Your task to perform on an android device: open app "Yahoo Mail" (install if not already installed) and enter user name: "lawsuit@inbox.com" and password: "pooch" Image 0: 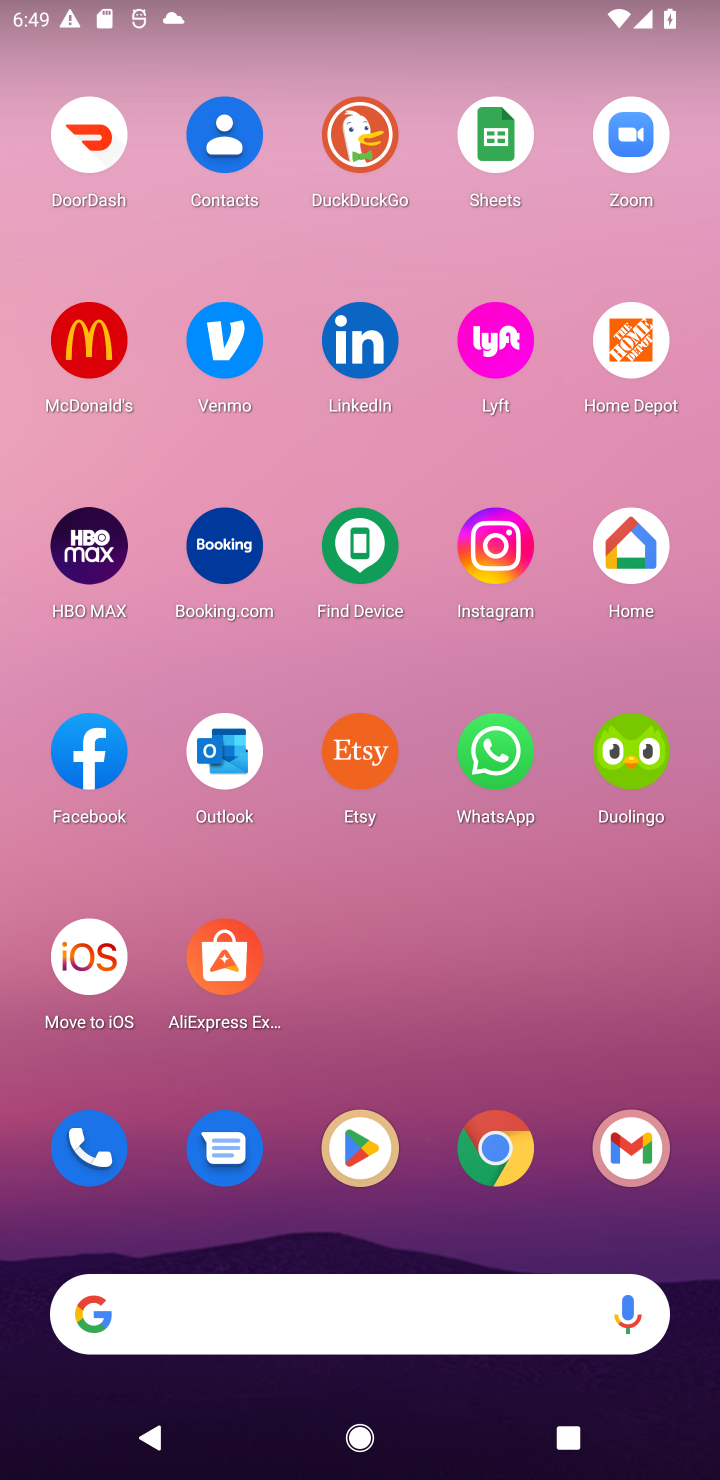
Step 0: drag from (138, 1309) to (35, 478)
Your task to perform on an android device: open app "Yahoo Mail" (install if not already installed) and enter user name: "lawsuit@inbox.com" and password: "pooch" Image 1: 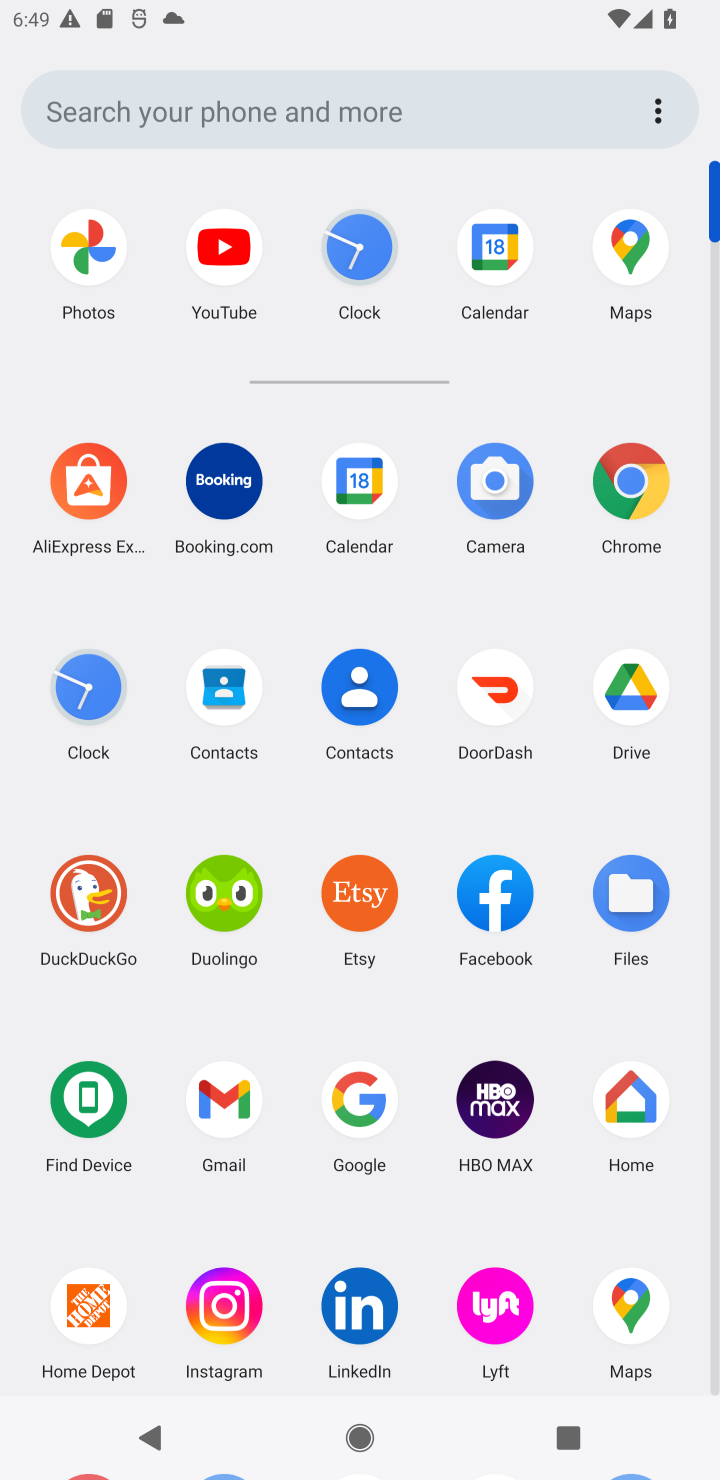
Step 1: drag from (478, 510) to (551, 251)
Your task to perform on an android device: open app "Yahoo Mail" (install if not already installed) and enter user name: "lawsuit@inbox.com" and password: "pooch" Image 2: 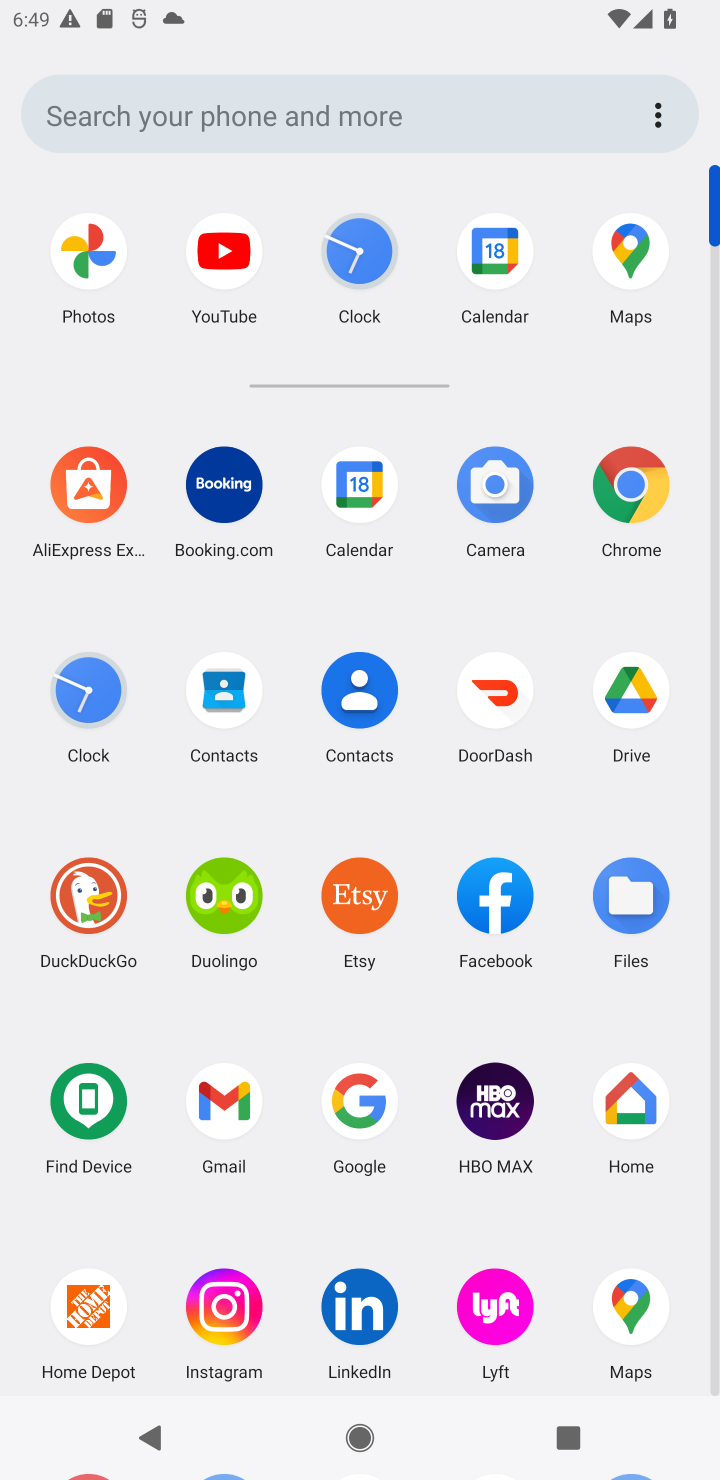
Step 2: drag from (390, 947) to (515, 152)
Your task to perform on an android device: open app "Yahoo Mail" (install if not already installed) and enter user name: "lawsuit@inbox.com" and password: "pooch" Image 3: 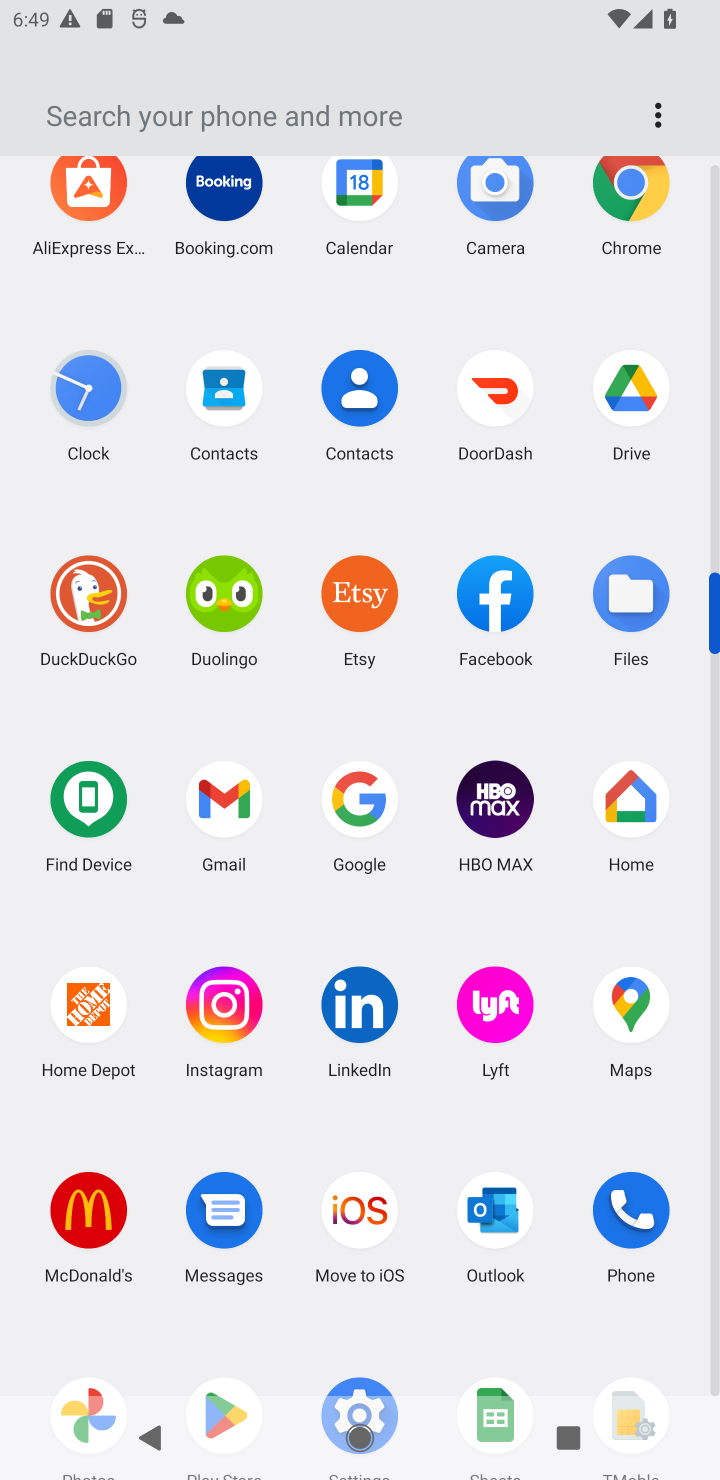
Step 3: drag from (266, 1270) to (572, 1)
Your task to perform on an android device: open app "Yahoo Mail" (install if not already installed) and enter user name: "lawsuit@inbox.com" and password: "pooch" Image 4: 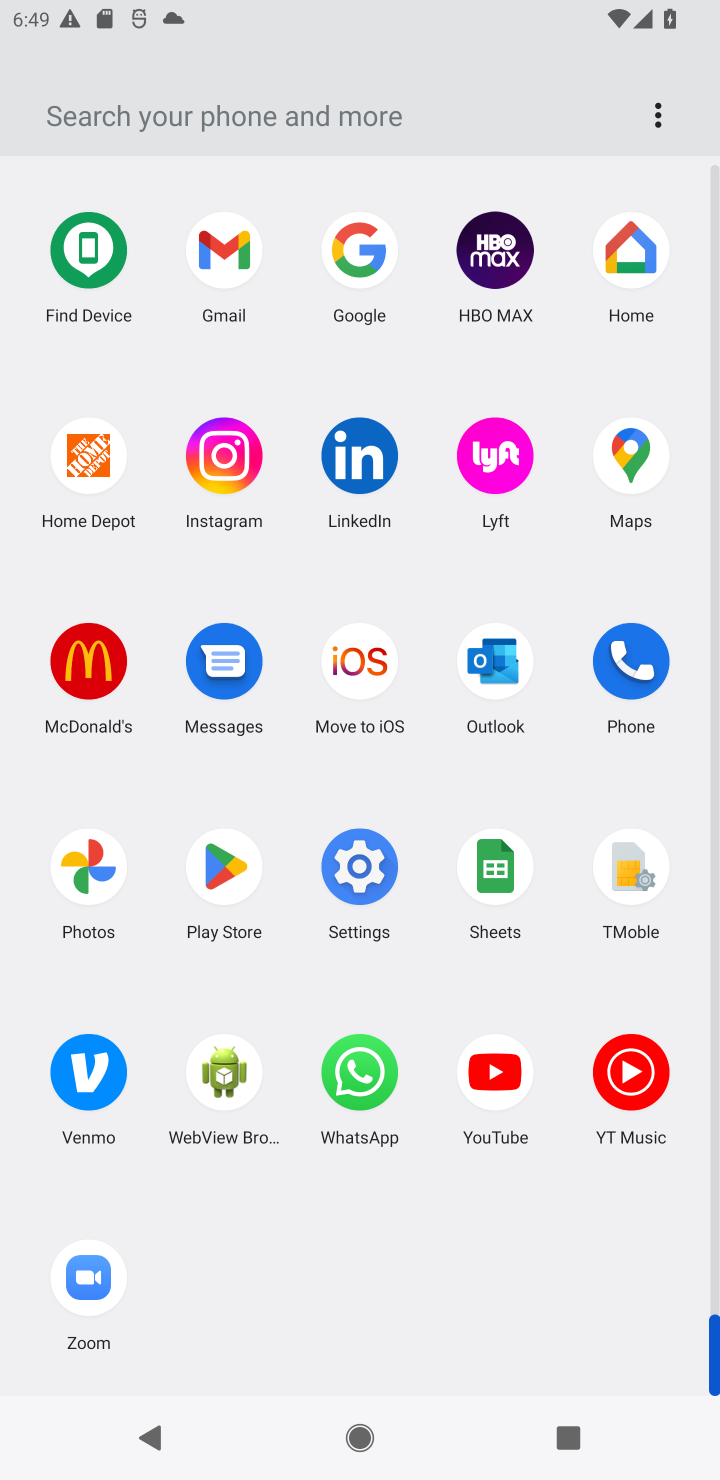
Step 4: click (230, 864)
Your task to perform on an android device: open app "Yahoo Mail" (install if not already installed) and enter user name: "lawsuit@inbox.com" and password: "pooch" Image 5: 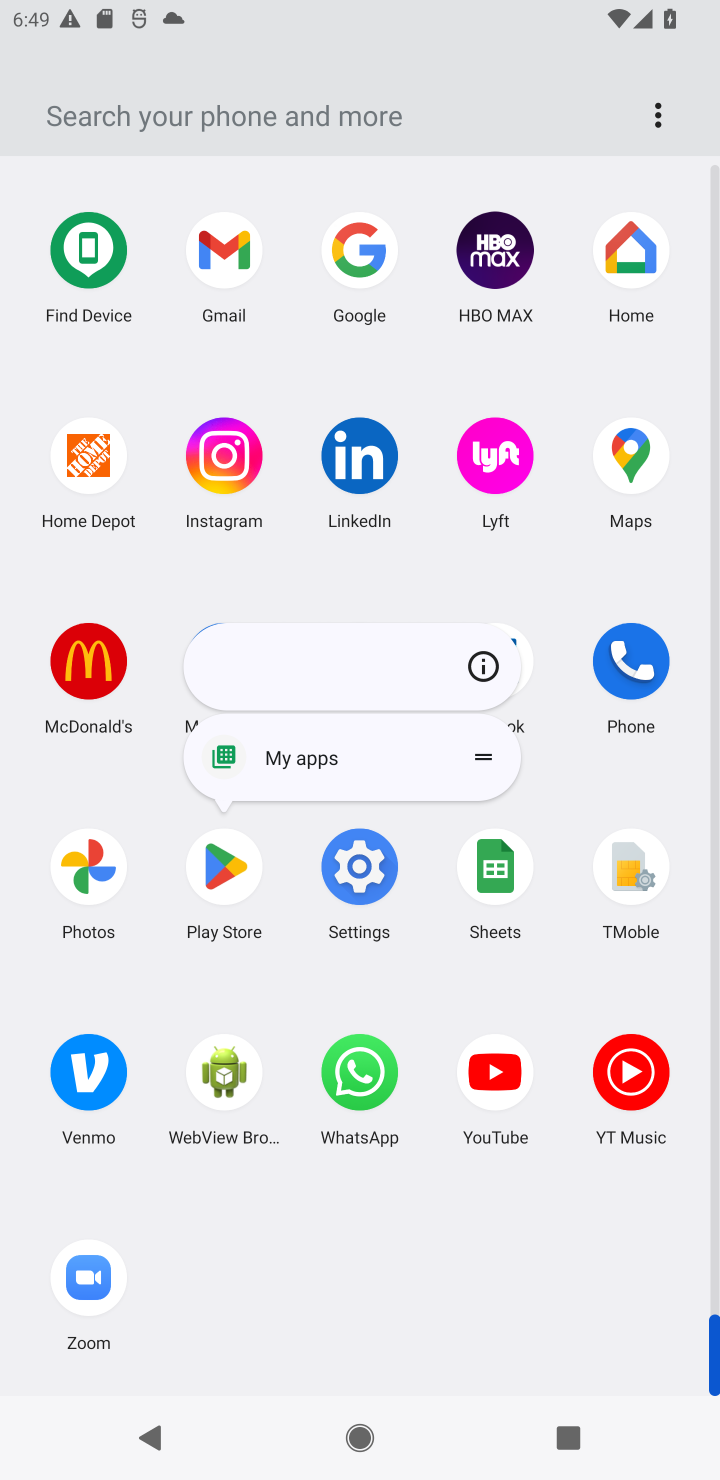
Step 5: click (228, 860)
Your task to perform on an android device: open app "Yahoo Mail" (install if not already installed) and enter user name: "lawsuit@inbox.com" and password: "pooch" Image 6: 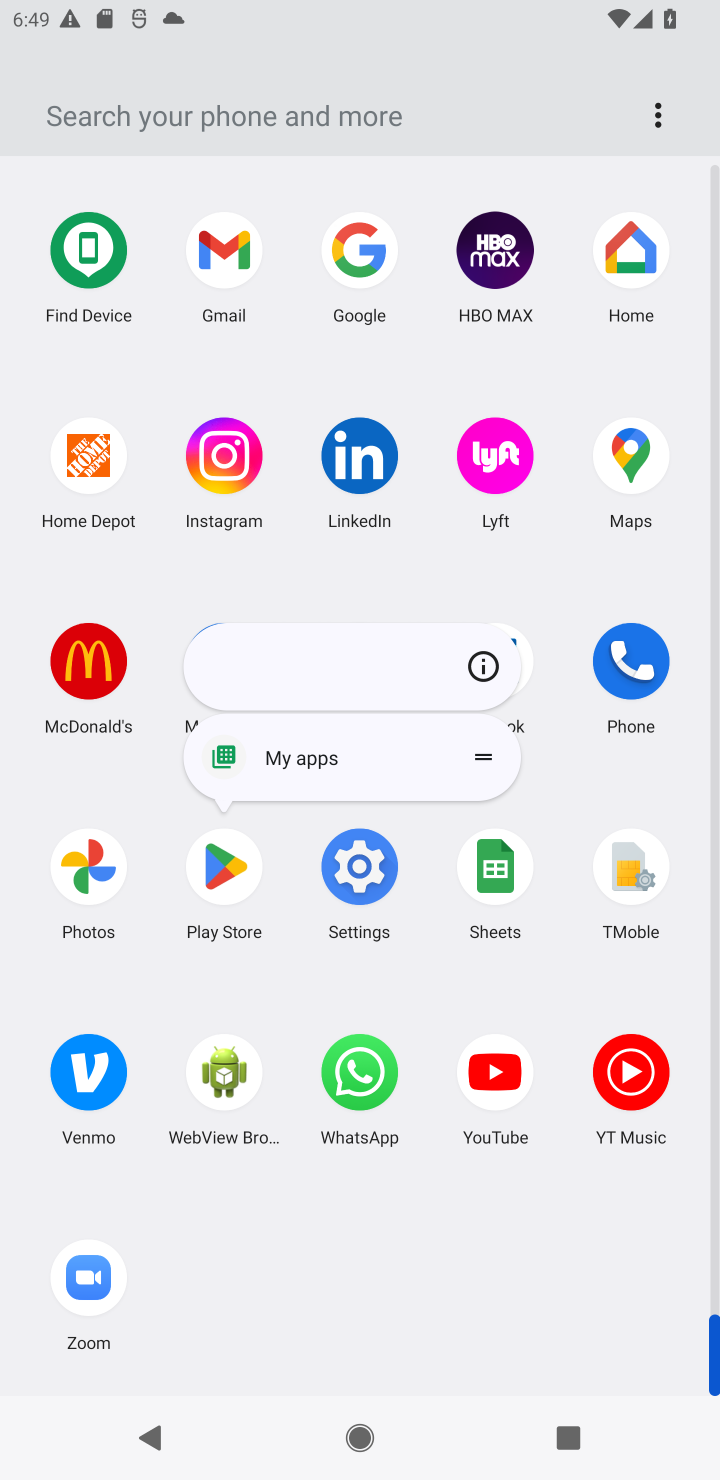
Step 6: click (227, 860)
Your task to perform on an android device: open app "Yahoo Mail" (install if not already installed) and enter user name: "lawsuit@inbox.com" and password: "pooch" Image 7: 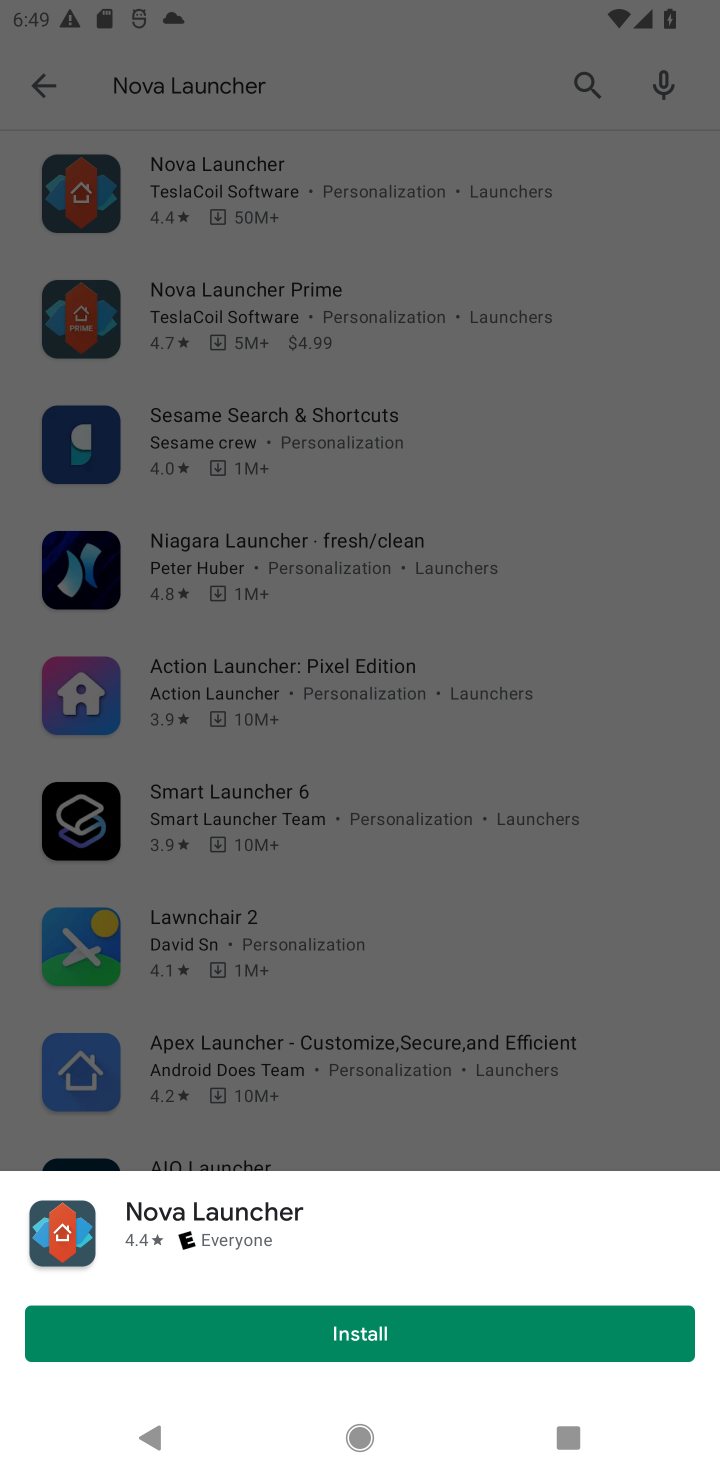
Step 7: press back button
Your task to perform on an android device: open app "Yahoo Mail" (install if not already installed) and enter user name: "lawsuit@inbox.com" and password: "pooch" Image 8: 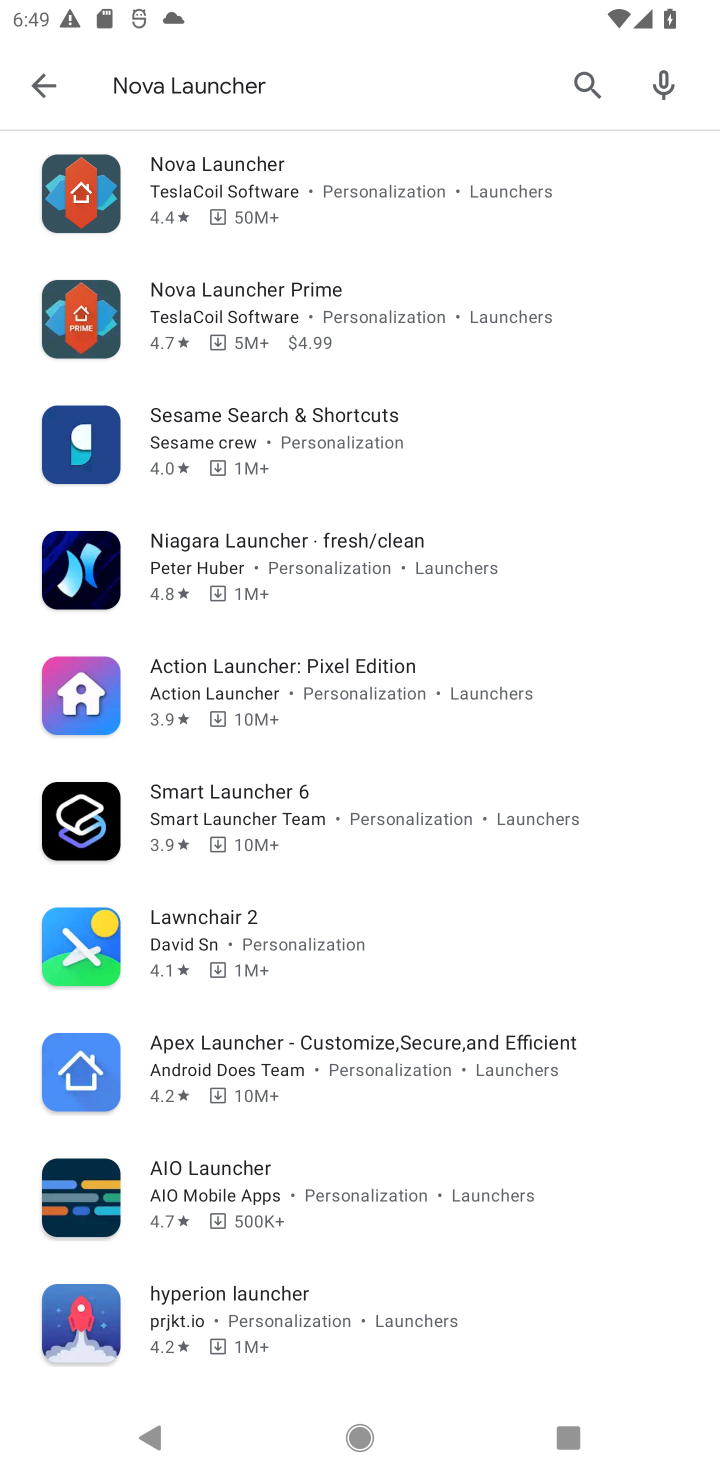
Step 8: press back button
Your task to perform on an android device: open app "Yahoo Mail" (install if not already installed) and enter user name: "lawsuit@inbox.com" and password: "pooch" Image 9: 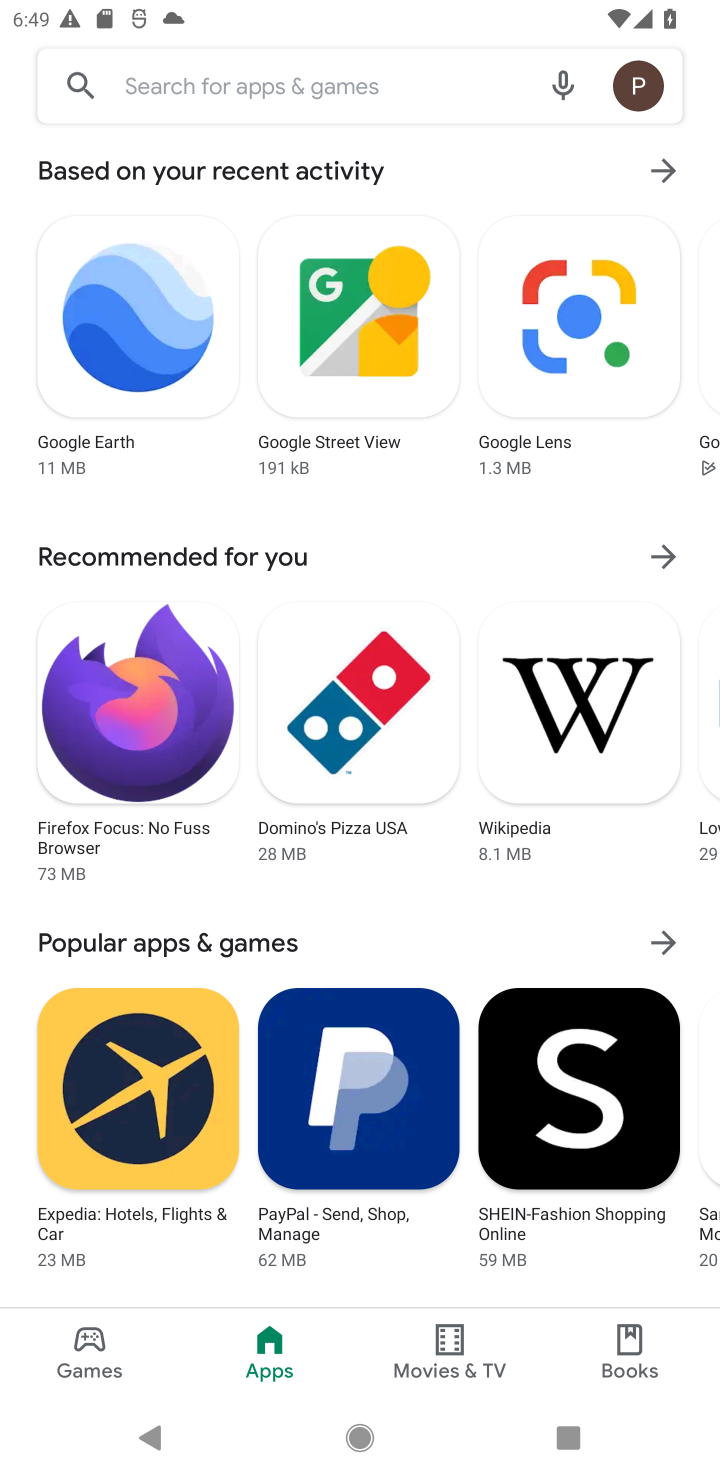
Step 9: click (197, 100)
Your task to perform on an android device: open app "Yahoo Mail" (install if not already installed) and enter user name: "lawsuit@inbox.com" and password: "pooch" Image 10: 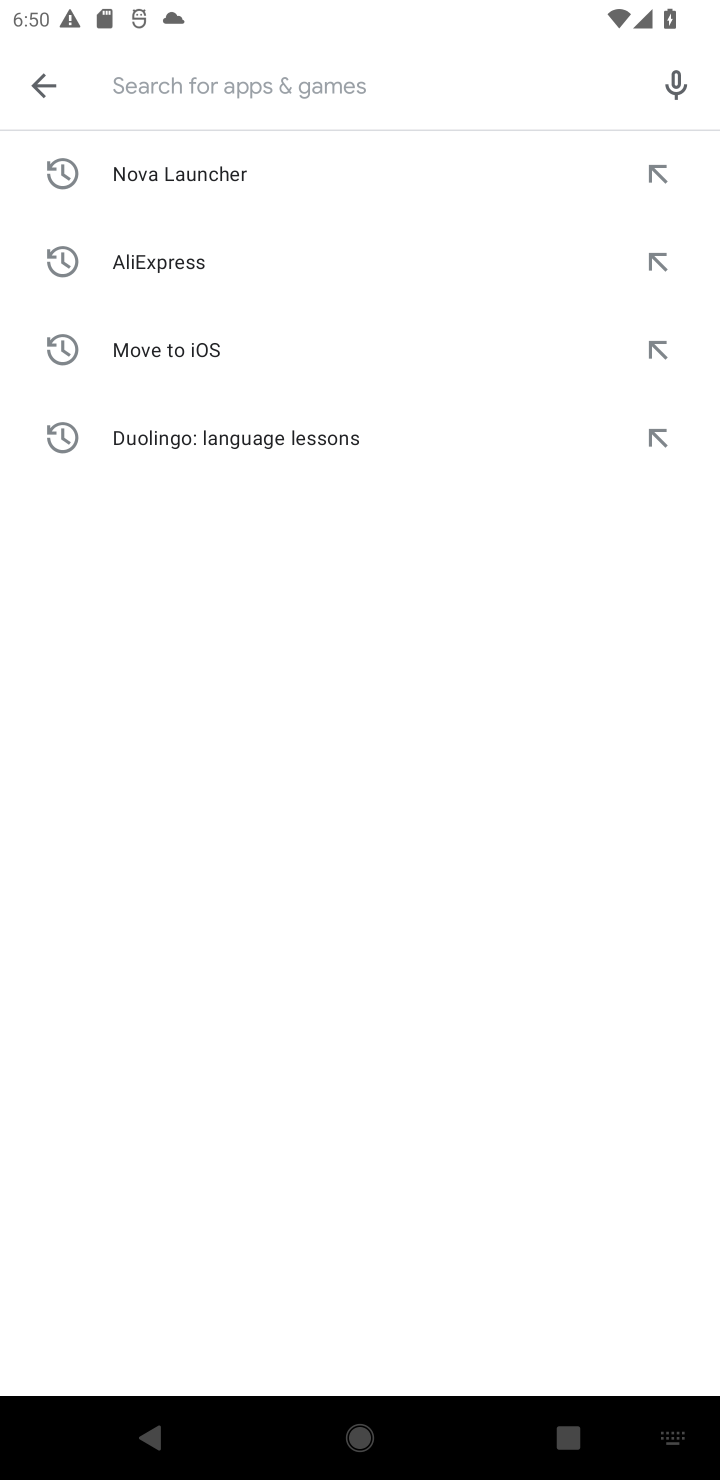
Step 10: type "Yahoo Mail""
Your task to perform on an android device: open app "Yahoo Mail" (install if not already installed) and enter user name: "lawsuit@inbox.com" and password: "pooch" Image 11: 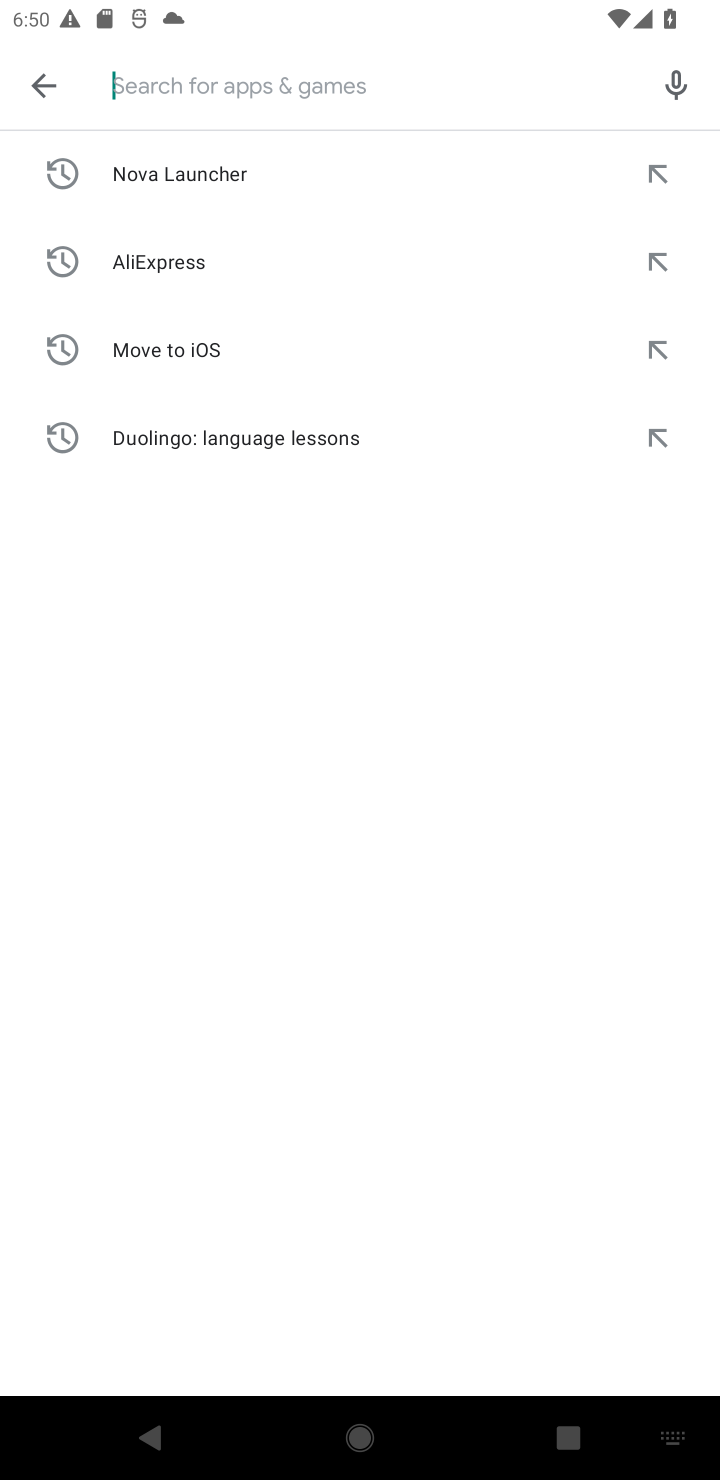
Step 11: press enter
Your task to perform on an android device: open app "Yahoo Mail" (install if not already installed) and enter user name: "lawsuit@inbox.com" and password: "pooch" Image 12: 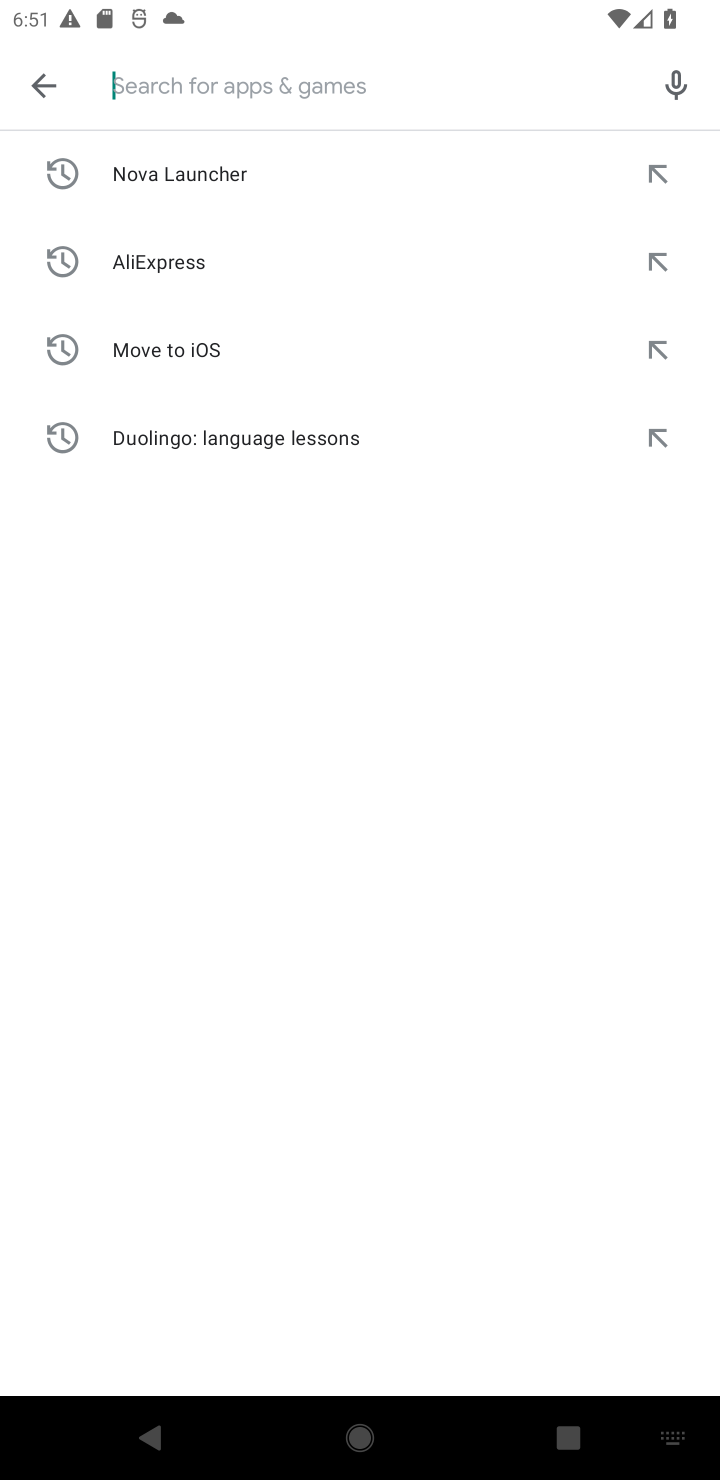
Step 12: type "Yahoo Mail""
Your task to perform on an android device: open app "Yahoo Mail" (install if not already installed) and enter user name: "lawsuit@inbox.com" and password: "pooch" Image 13: 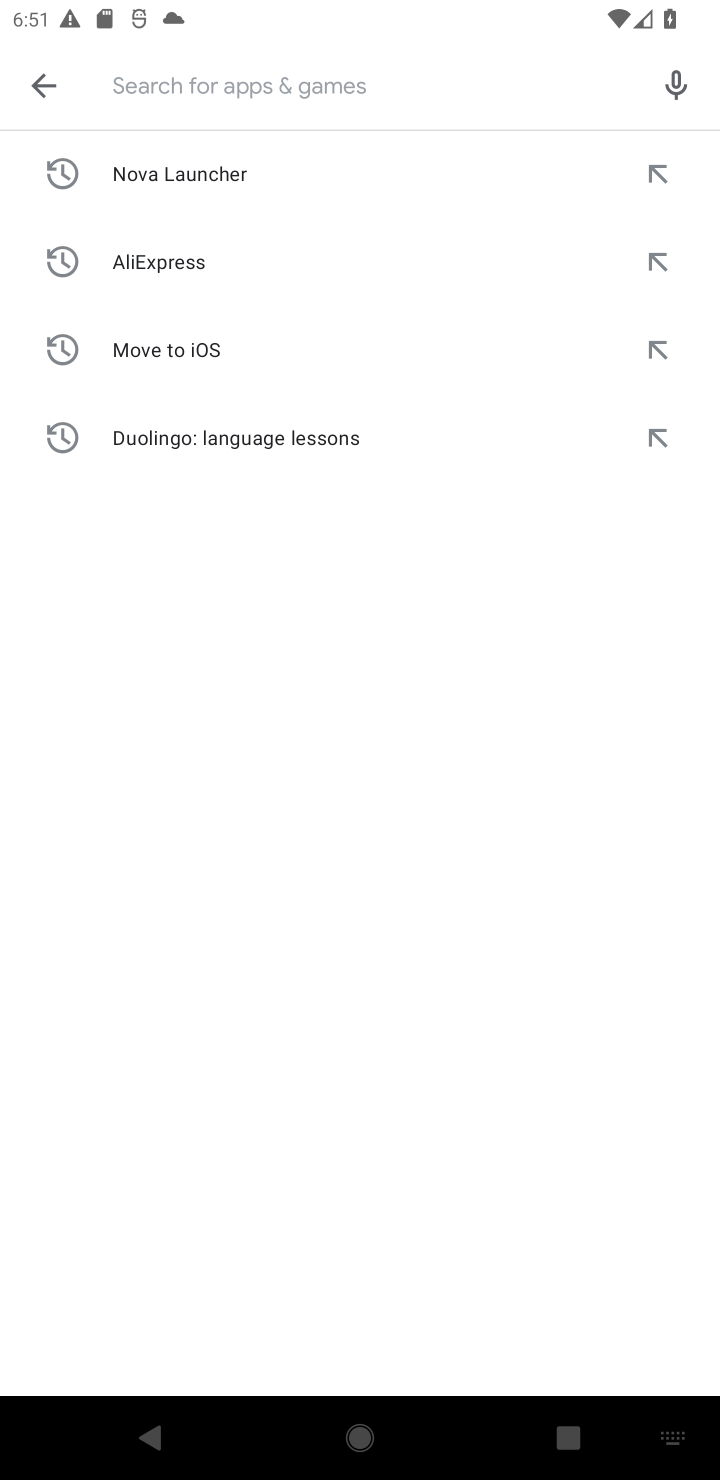
Step 13: press enter
Your task to perform on an android device: open app "Yahoo Mail" (install if not already installed) and enter user name: "lawsuit@inbox.com" and password: "pooch" Image 14: 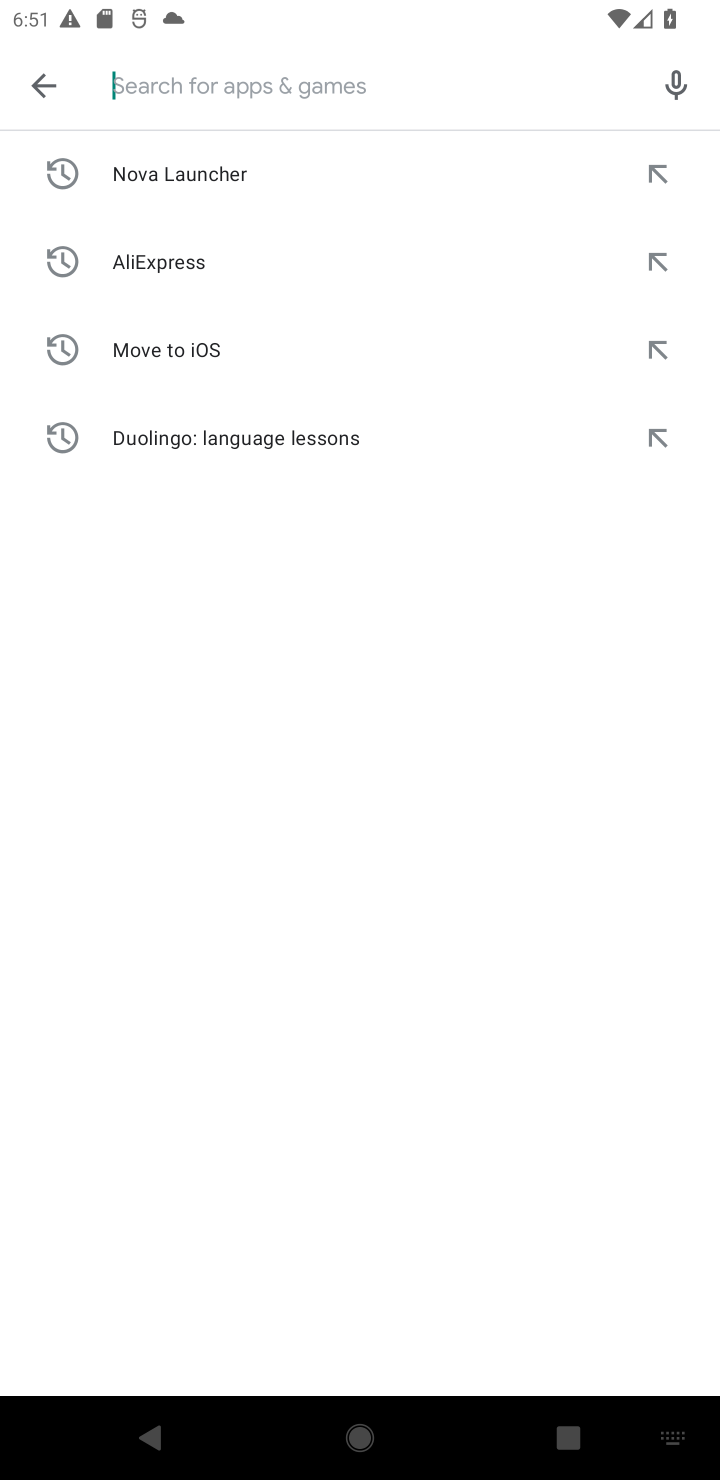
Step 14: type "Yahoo Mail""
Your task to perform on an android device: open app "Yahoo Mail" (install if not already installed) and enter user name: "lawsuit@inbox.com" and password: "pooch" Image 15: 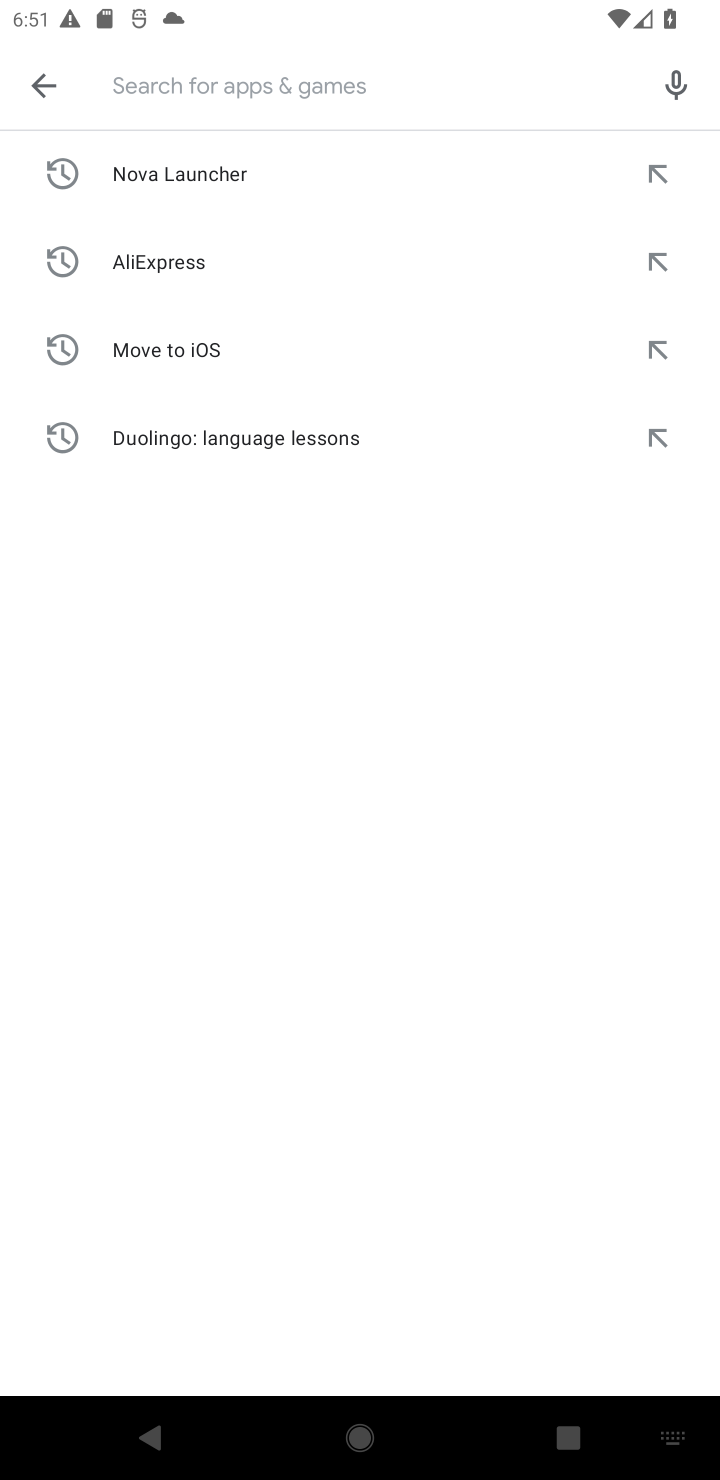
Step 15: press enter
Your task to perform on an android device: open app "Yahoo Mail" (install if not already installed) and enter user name: "lawsuit@inbox.com" and password: "pooch" Image 16: 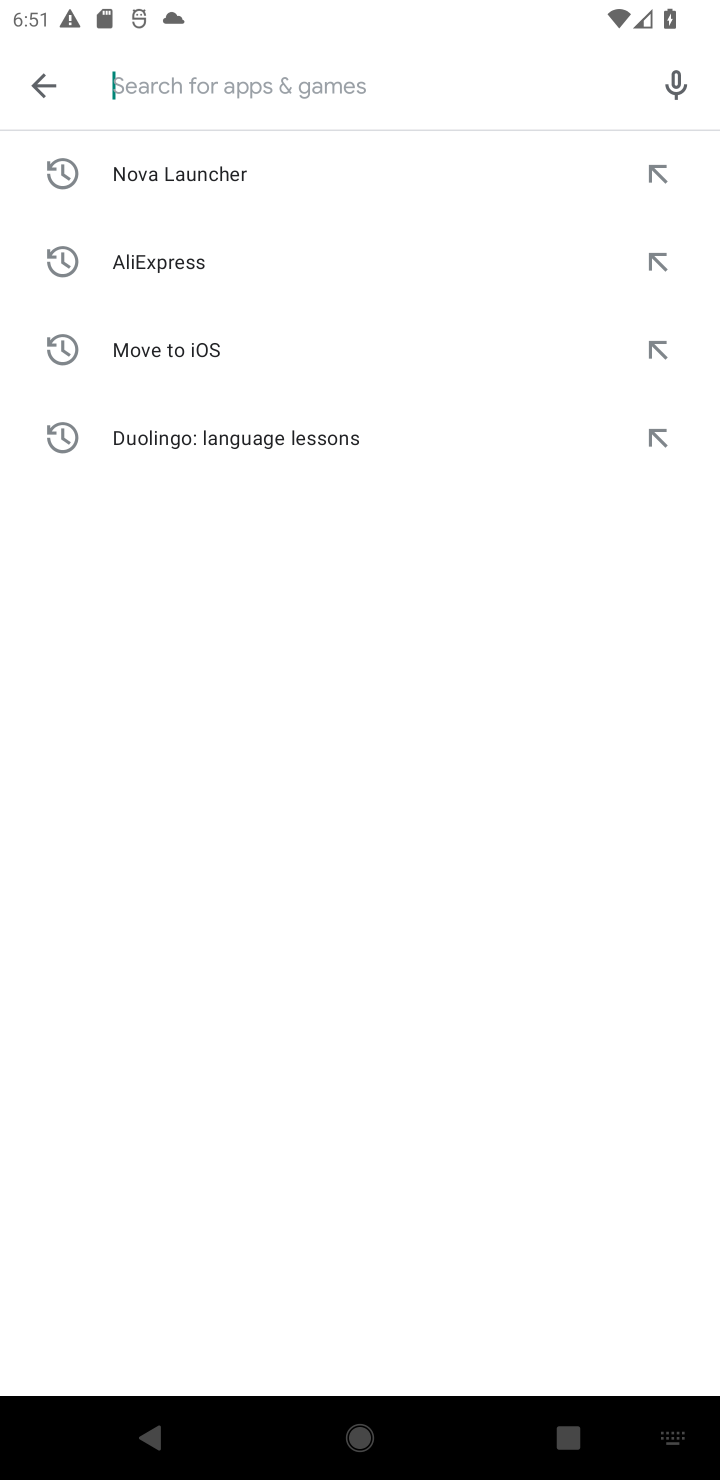
Step 16: click (186, 97)
Your task to perform on an android device: open app "Yahoo Mail" (install if not already installed) and enter user name: "lawsuit@inbox.com" and password: "pooch" Image 17: 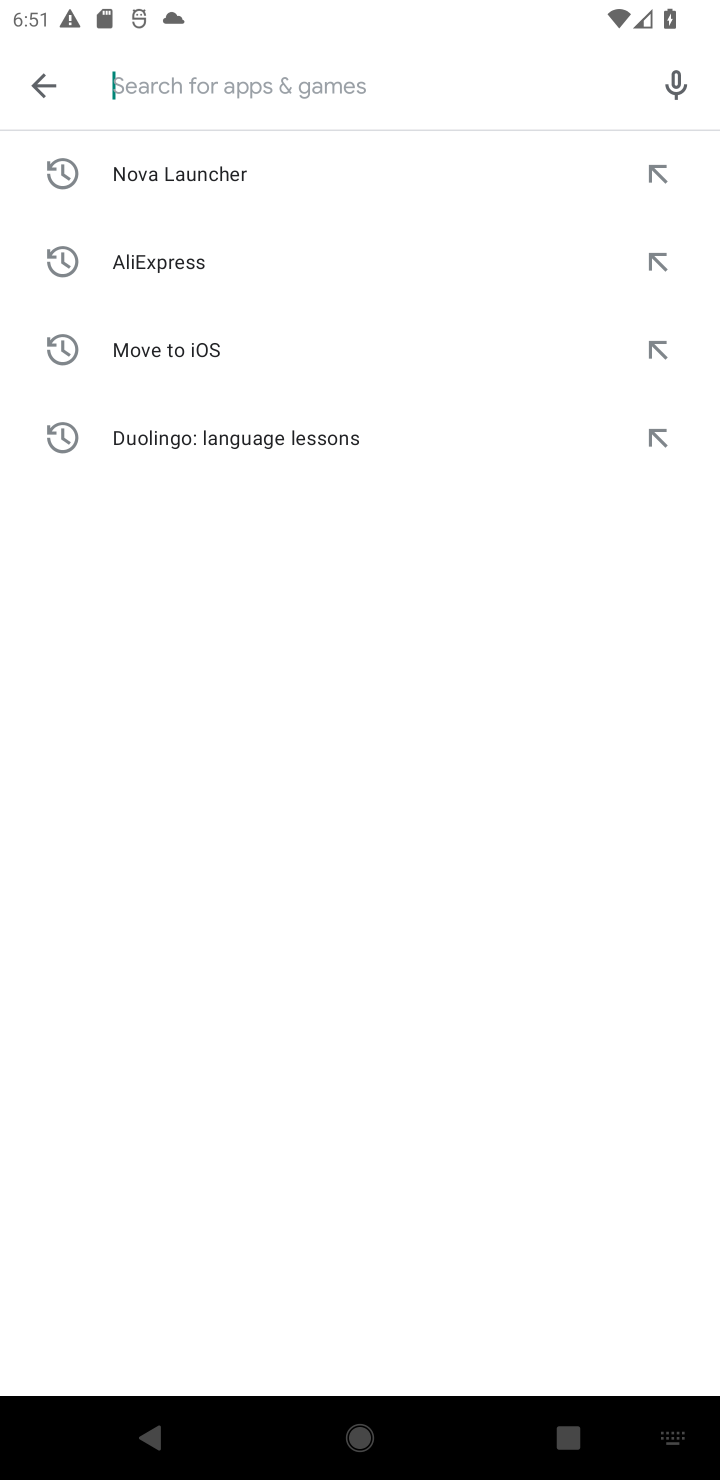
Step 17: type "Yahoo Mail""
Your task to perform on an android device: open app "Yahoo Mail" (install if not already installed) and enter user name: "lawsuit@inbox.com" and password: "pooch" Image 18: 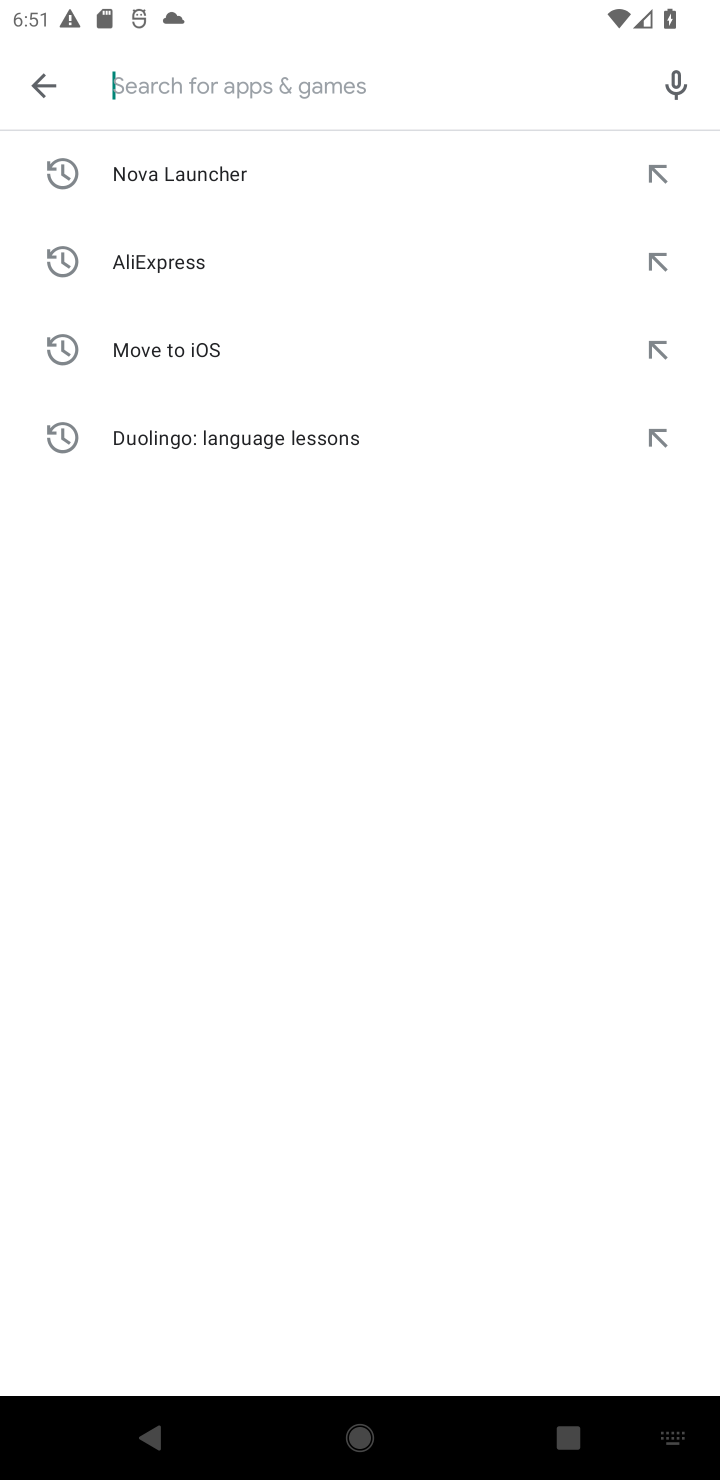
Step 18: press enter
Your task to perform on an android device: open app "Yahoo Mail" (install if not already installed) and enter user name: "lawsuit@inbox.com" and password: "pooch" Image 19: 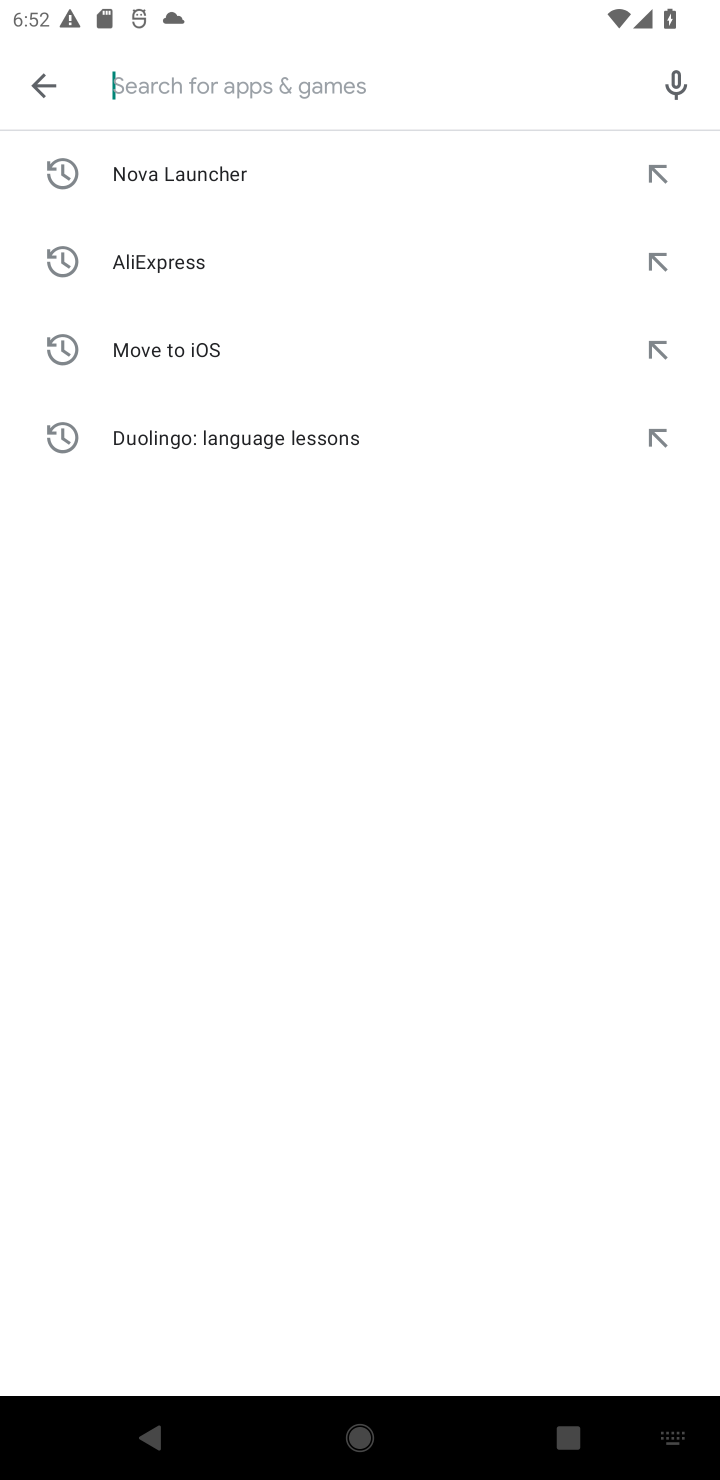
Step 19: task complete